Your task to perform on an android device: open app "Microsoft Excel" (install if not already installed) and enter user name: "kidnappers@icloud.com" and password: "Bessemerizes" Image 0: 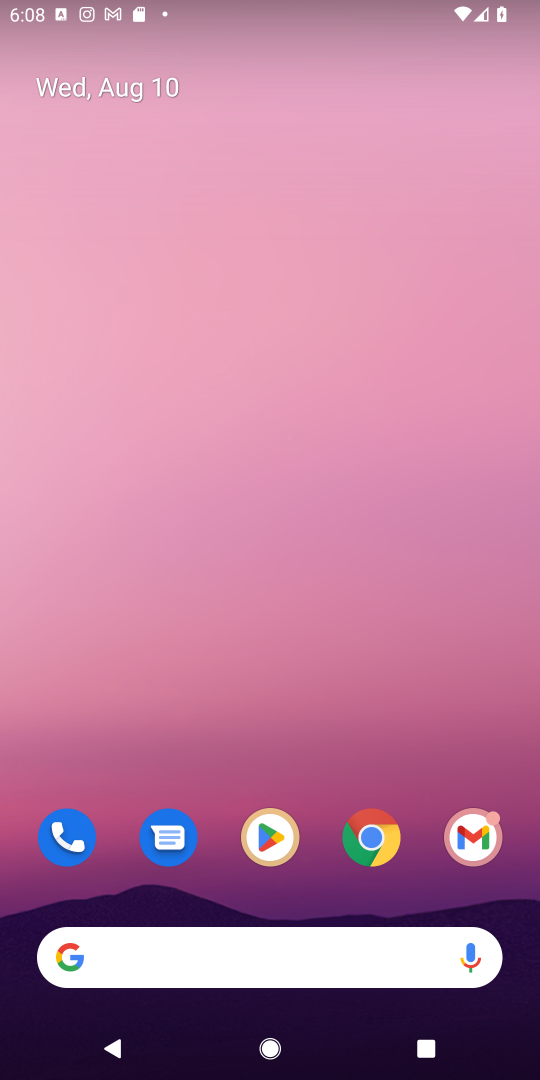
Step 0: click (264, 837)
Your task to perform on an android device: open app "Microsoft Excel" (install if not already installed) and enter user name: "kidnappers@icloud.com" and password: "Bessemerizes" Image 1: 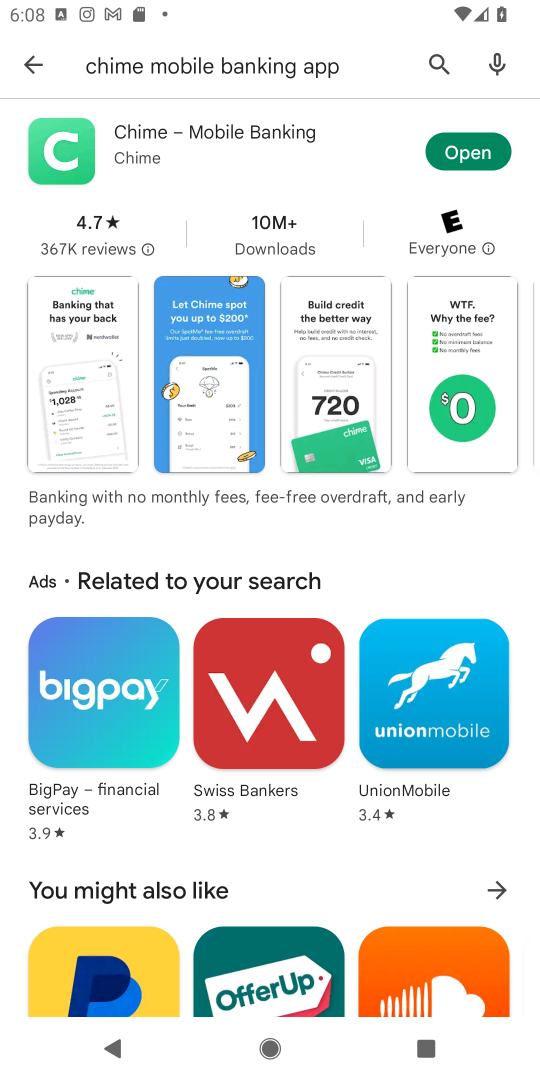
Step 1: click (430, 56)
Your task to perform on an android device: open app "Microsoft Excel" (install if not already installed) and enter user name: "kidnappers@icloud.com" and password: "Bessemerizes" Image 2: 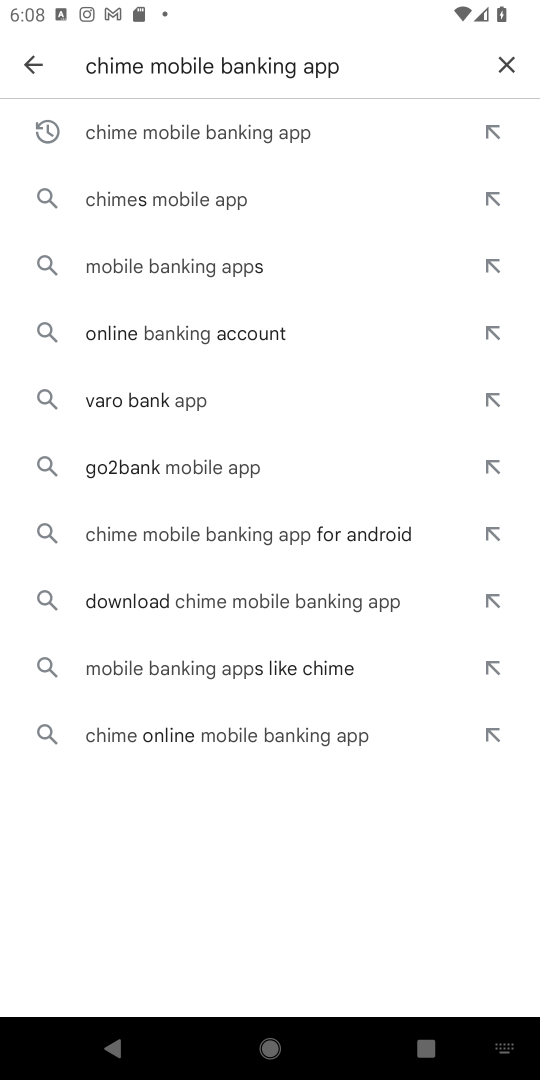
Step 2: click (508, 55)
Your task to perform on an android device: open app "Microsoft Excel" (install if not already installed) and enter user name: "kidnappers@icloud.com" and password: "Bessemerizes" Image 3: 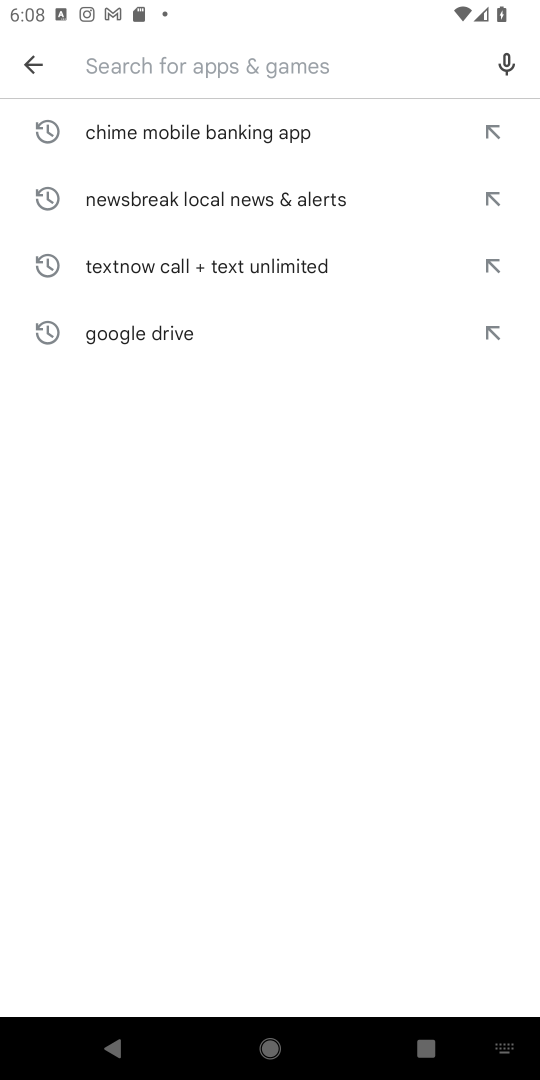
Step 3: type "Microsoft Excel"
Your task to perform on an android device: open app "Microsoft Excel" (install if not already installed) and enter user name: "kidnappers@icloud.com" and password: "Bessemerizes" Image 4: 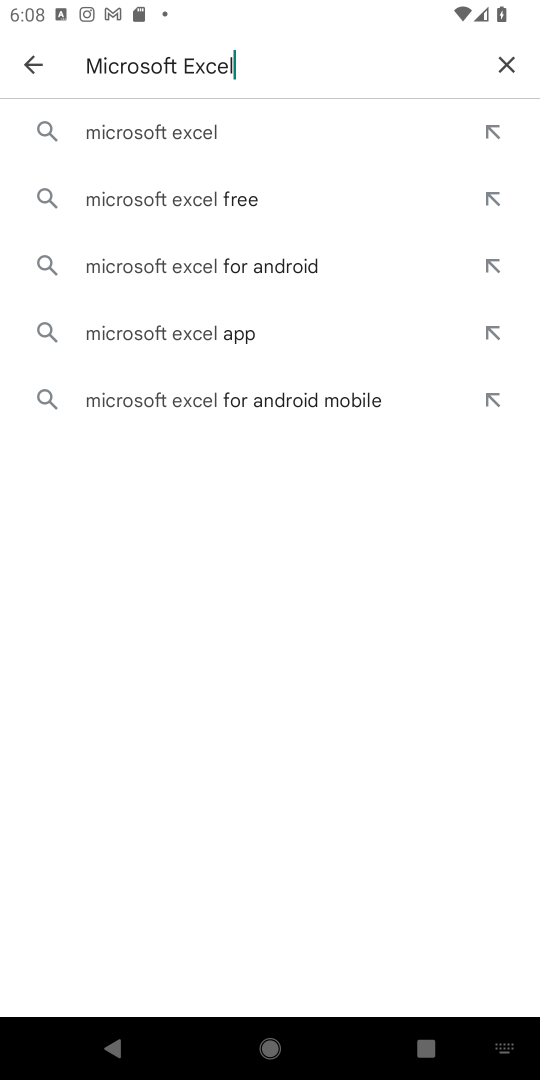
Step 4: click (190, 128)
Your task to perform on an android device: open app "Microsoft Excel" (install if not already installed) and enter user name: "kidnappers@icloud.com" and password: "Bessemerizes" Image 5: 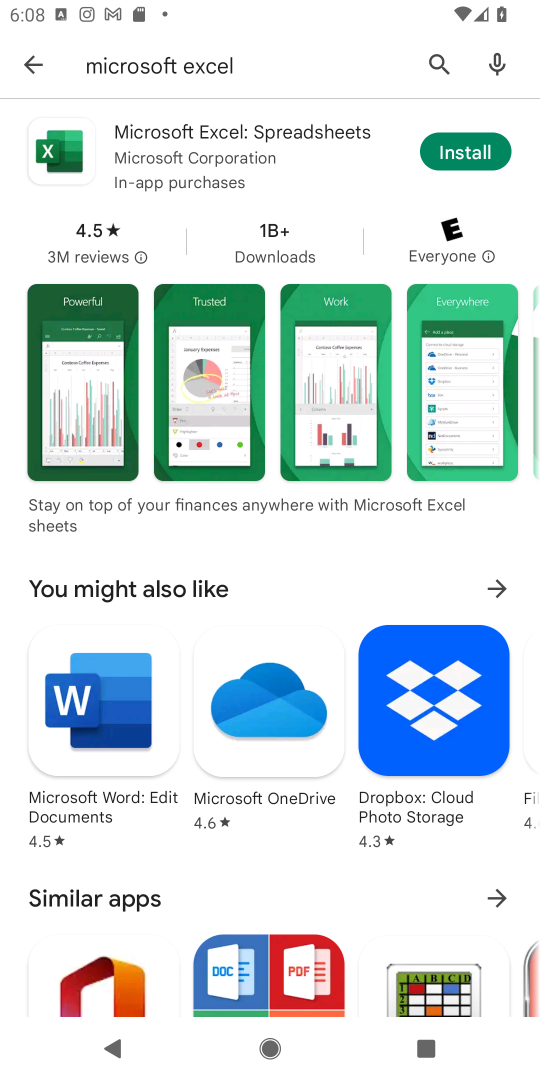
Step 5: click (470, 158)
Your task to perform on an android device: open app "Microsoft Excel" (install if not already installed) and enter user name: "kidnappers@icloud.com" and password: "Bessemerizes" Image 6: 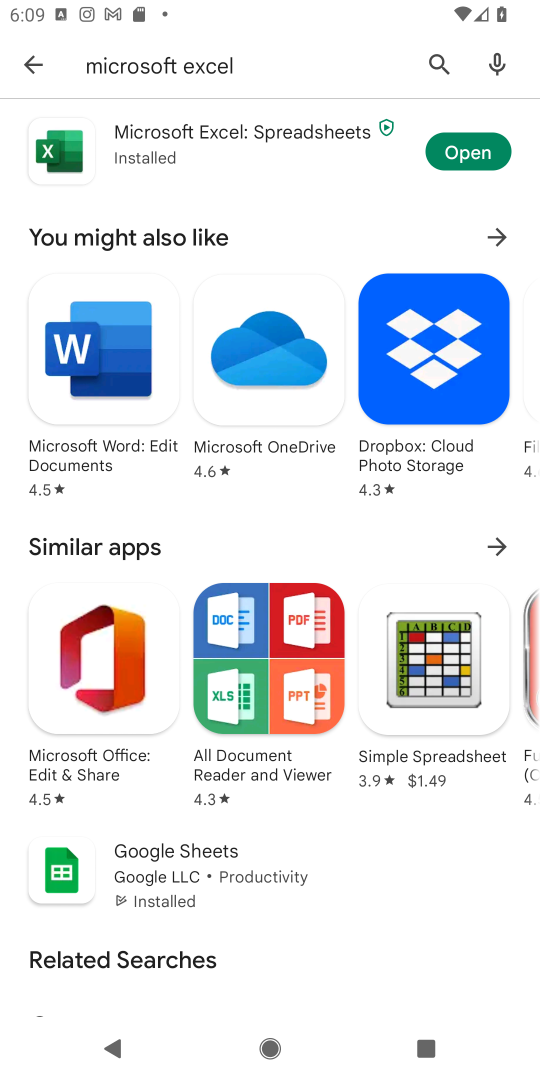
Step 6: click (484, 163)
Your task to perform on an android device: open app "Microsoft Excel" (install if not already installed) and enter user name: "kidnappers@icloud.com" and password: "Bessemerizes" Image 7: 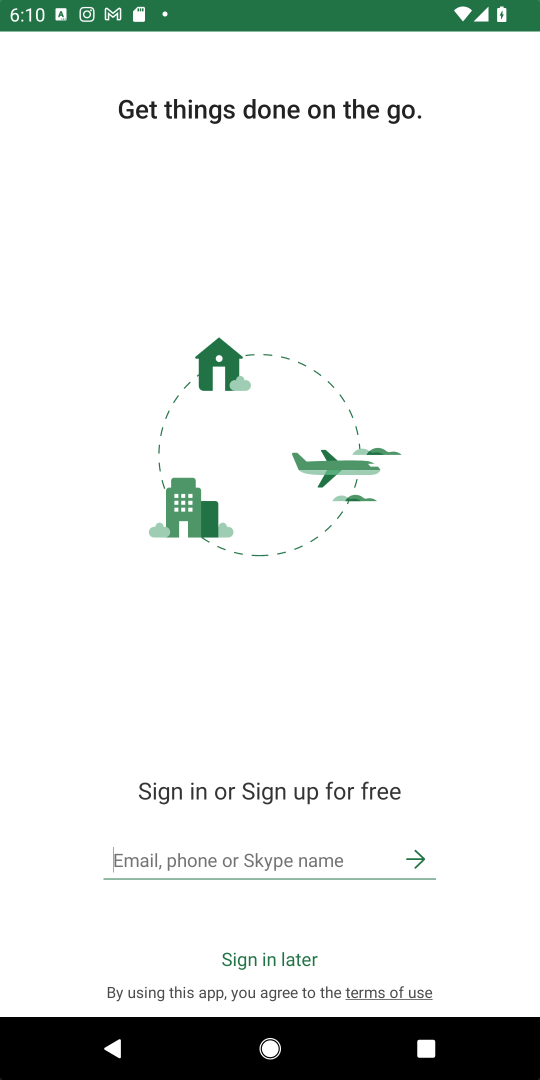
Step 7: click (182, 833)
Your task to perform on an android device: open app "Microsoft Excel" (install if not already installed) and enter user name: "kidnappers@icloud.com" and password: "Bessemerizes" Image 8: 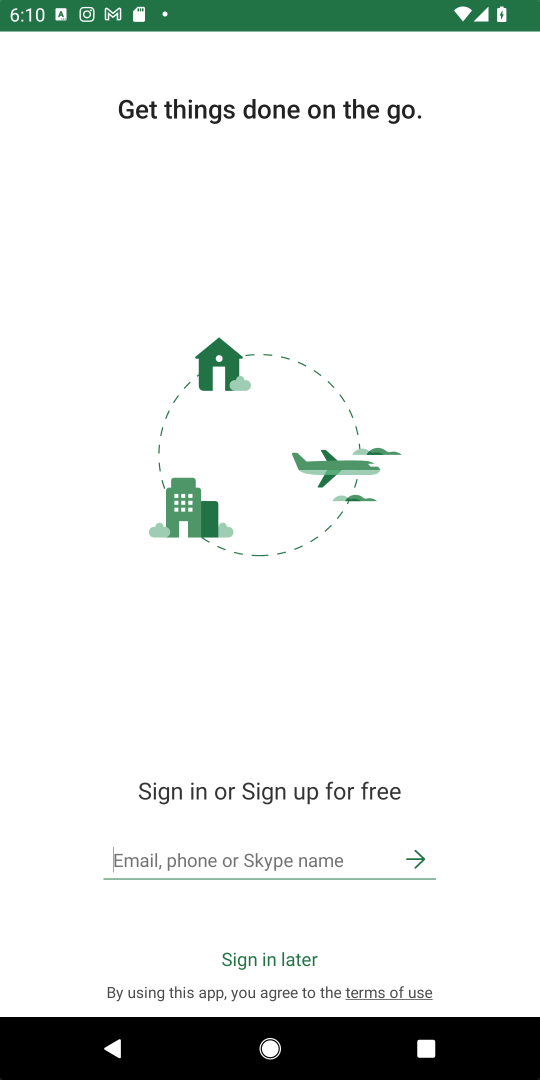
Step 8: click (187, 854)
Your task to perform on an android device: open app "Microsoft Excel" (install if not already installed) and enter user name: "kidnappers@icloud.com" and password: "Bessemerizes" Image 9: 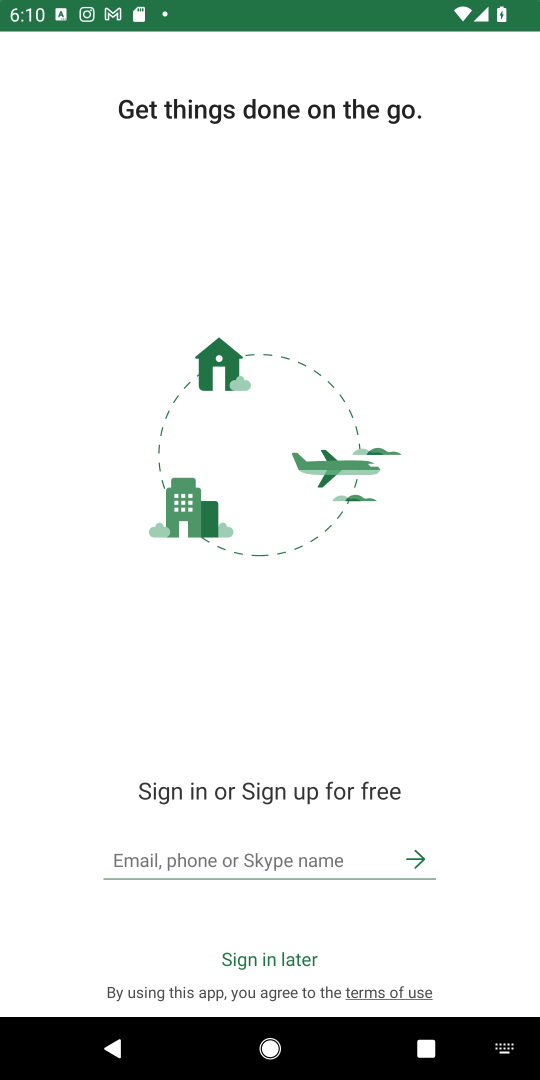
Step 9: type "kidnappers@icloud.com"
Your task to perform on an android device: open app "Microsoft Excel" (install if not already installed) and enter user name: "kidnappers@icloud.com" and password: "Bessemerizes" Image 10: 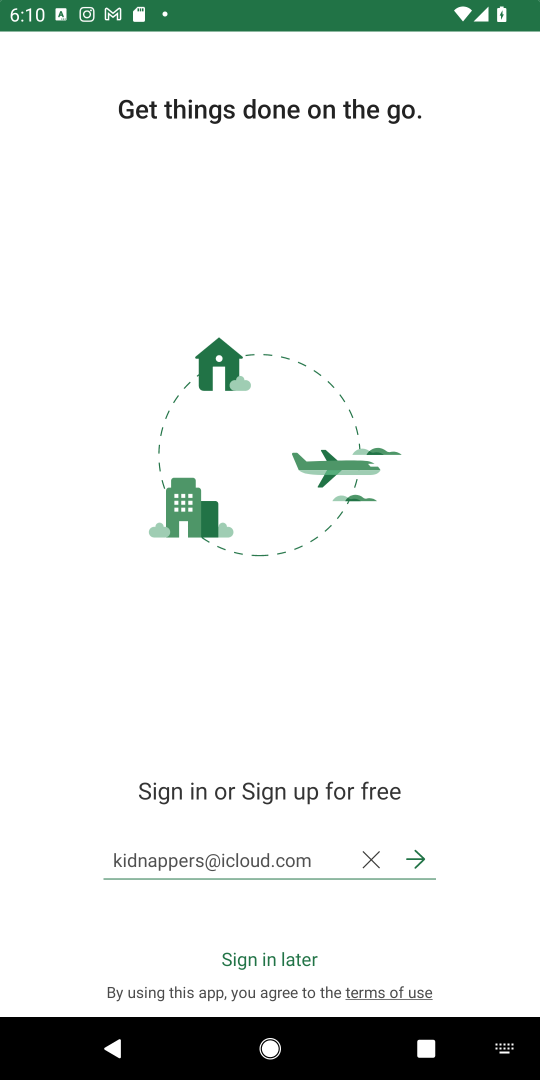
Step 10: click (409, 855)
Your task to perform on an android device: open app "Microsoft Excel" (install if not already installed) and enter user name: "kidnappers@icloud.com" and password: "Bessemerizes" Image 11: 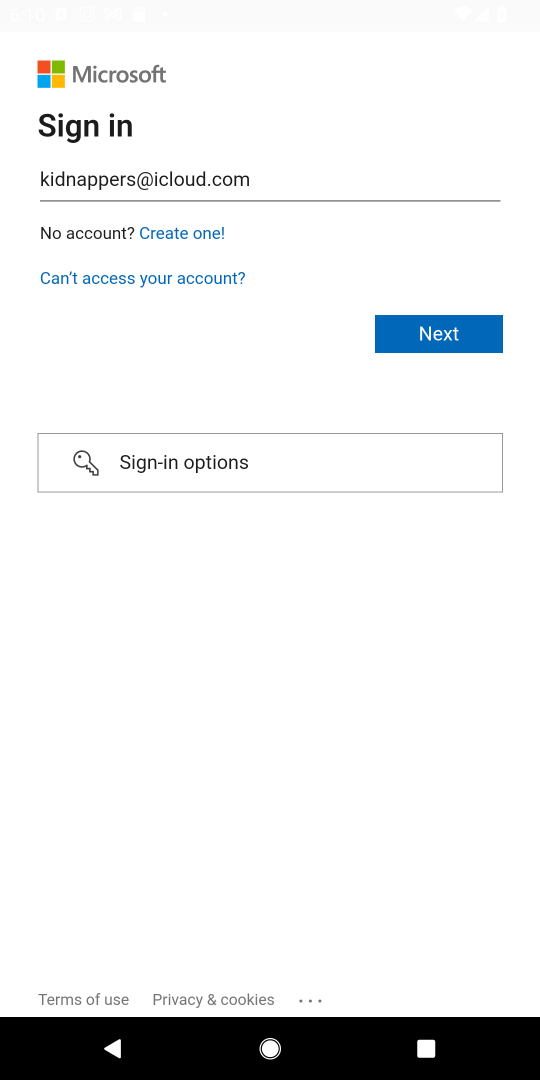
Step 11: click (422, 329)
Your task to perform on an android device: open app "Microsoft Excel" (install if not already installed) and enter user name: "kidnappers@icloud.com" and password: "Bessemerizes" Image 12: 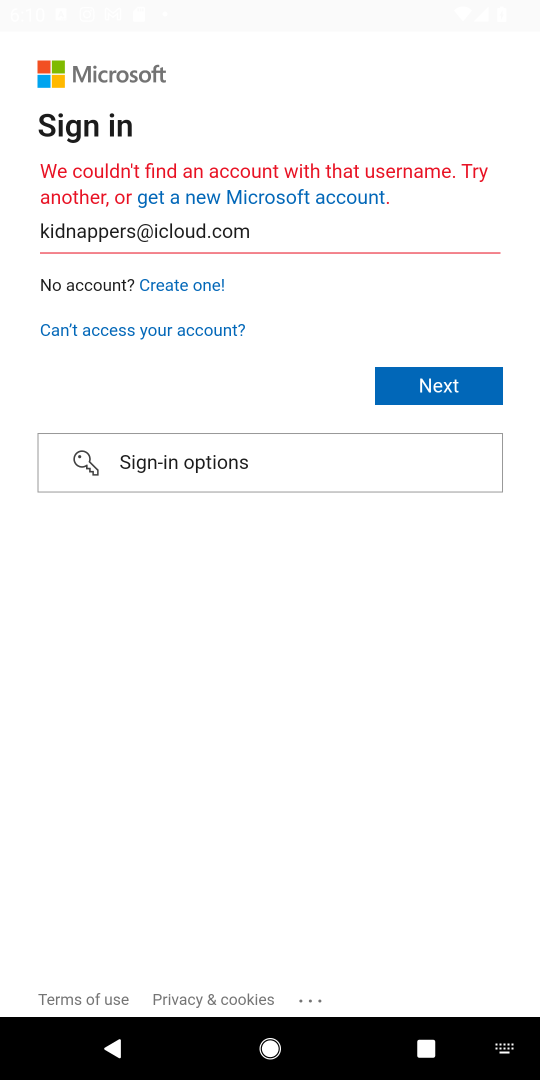
Step 12: task complete